Your task to perform on an android device: remove spam from my inbox in the gmail app Image 0: 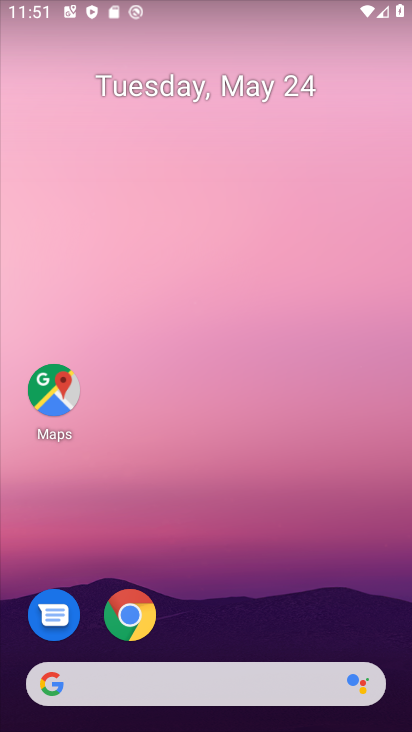
Step 0: drag from (249, 627) to (279, 1)
Your task to perform on an android device: remove spam from my inbox in the gmail app Image 1: 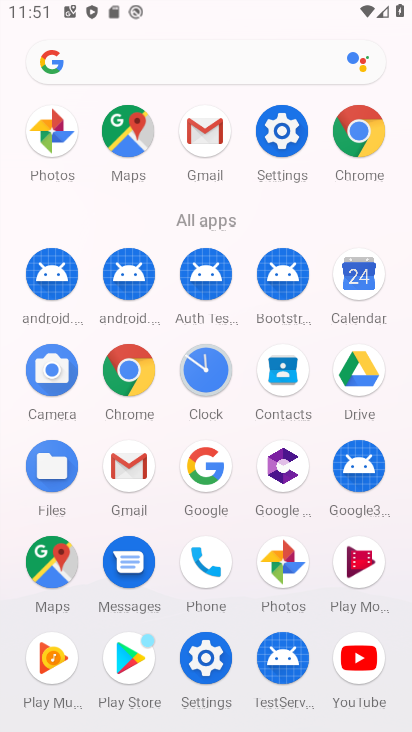
Step 1: click (205, 131)
Your task to perform on an android device: remove spam from my inbox in the gmail app Image 2: 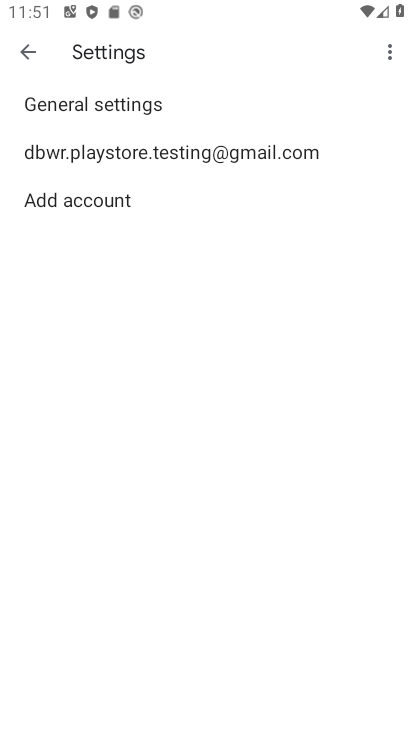
Step 2: click (38, 55)
Your task to perform on an android device: remove spam from my inbox in the gmail app Image 3: 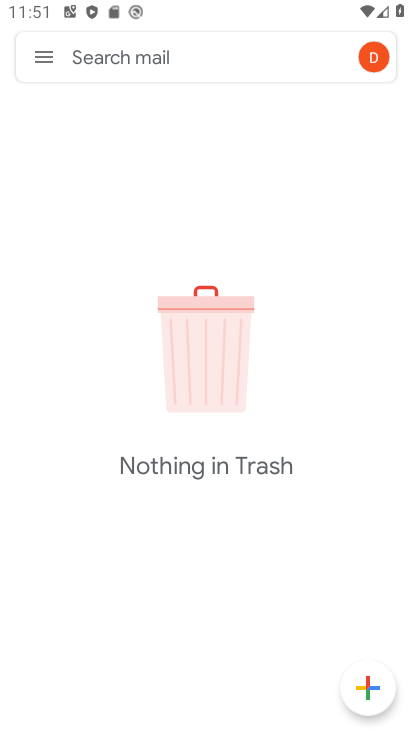
Step 3: click (38, 56)
Your task to perform on an android device: remove spam from my inbox in the gmail app Image 4: 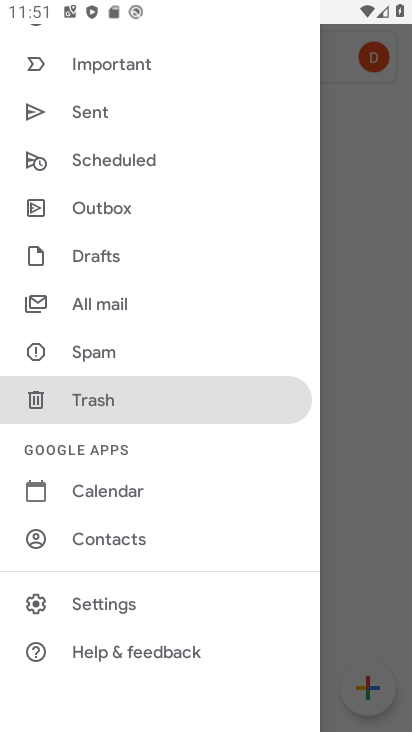
Step 4: click (88, 354)
Your task to perform on an android device: remove spam from my inbox in the gmail app Image 5: 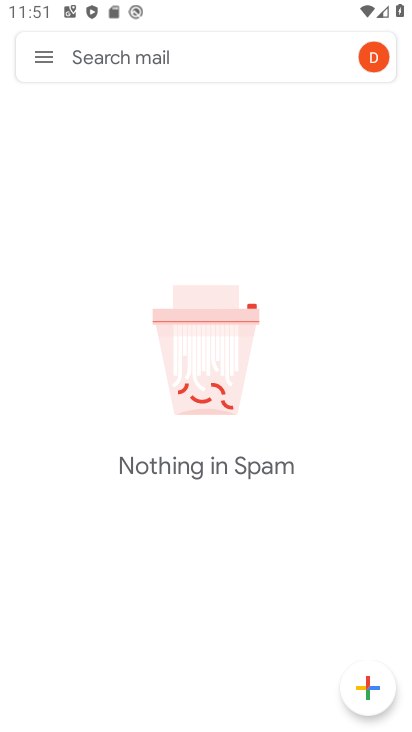
Step 5: task complete